Your task to perform on an android device: refresh tabs in the chrome app Image 0: 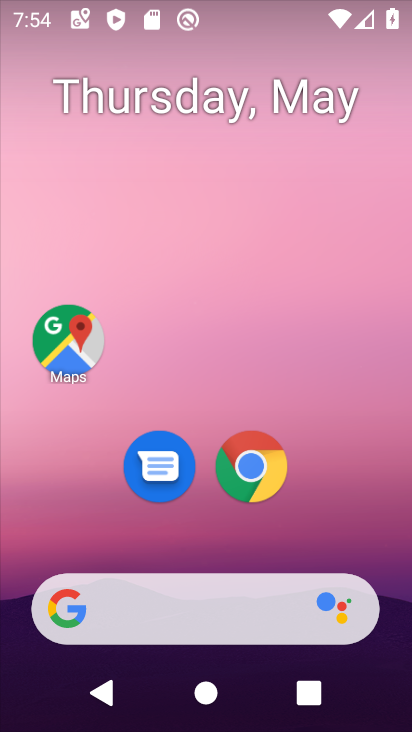
Step 0: click (257, 470)
Your task to perform on an android device: refresh tabs in the chrome app Image 1: 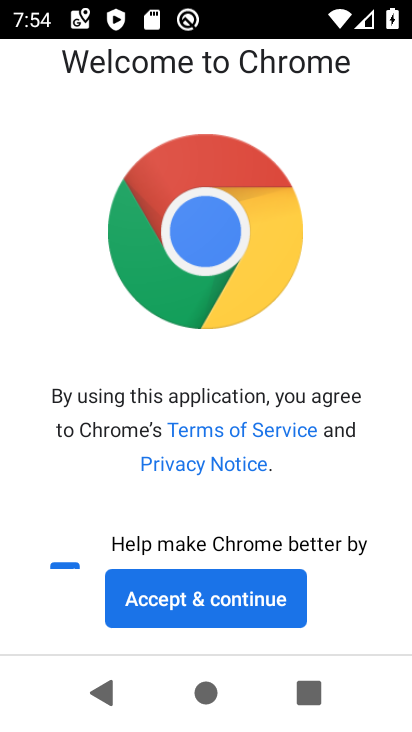
Step 1: click (194, 603)
Your task to perform on an android device: refresh tabs in the chrome app Image 2: 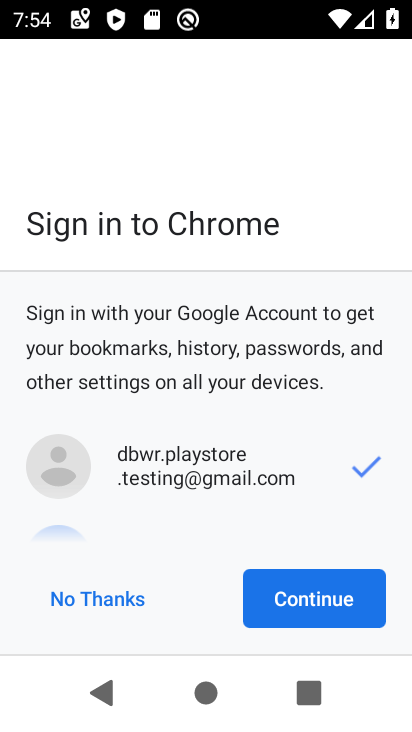
Step 2: click (109, 596)
Your task to perform on an android device: refresh tabs in the chrome app Image 3: 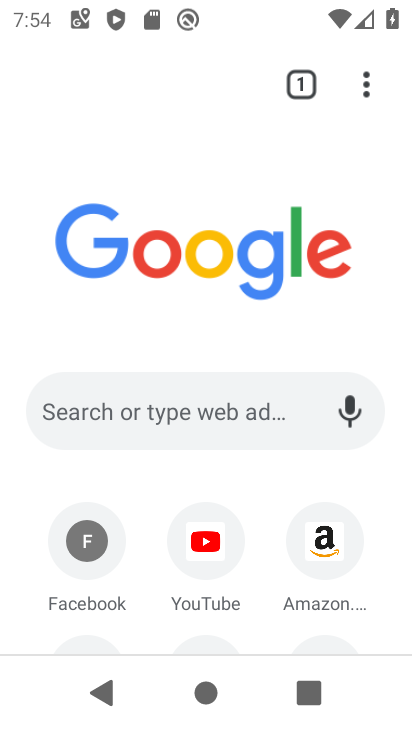
Step 3: click (365, 86)
Your task to perform on an android device: refresh tabs in the chrome app Image 4: 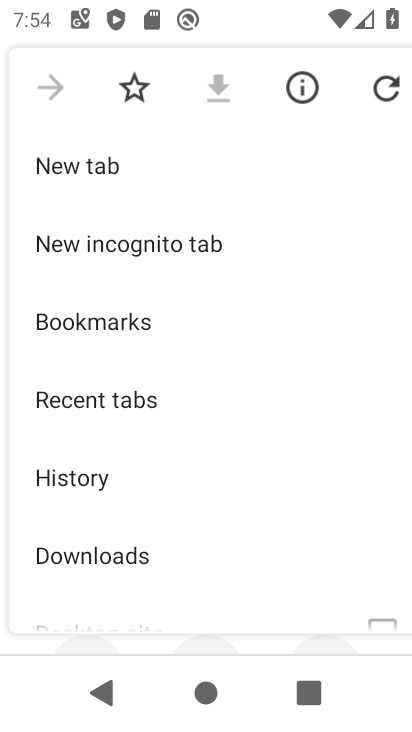
Step 4: click (381, 95)
Your task to perform on an android device: refresh tabs in the chrome app Image 5: 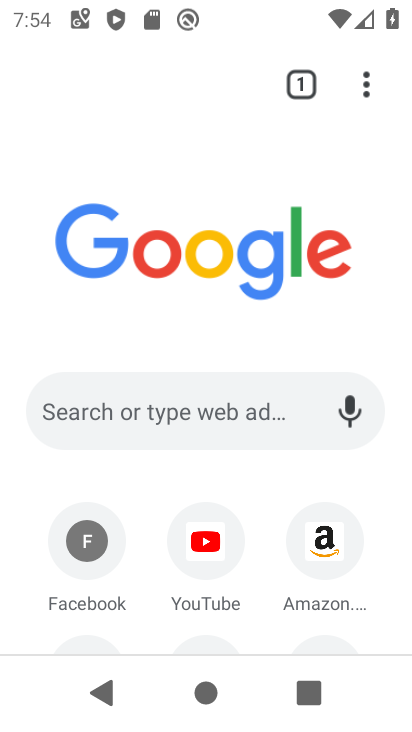
Step 5: task complete